Your task to perform on an android device: open the mobile data screen to see how much data has been used Image 0: 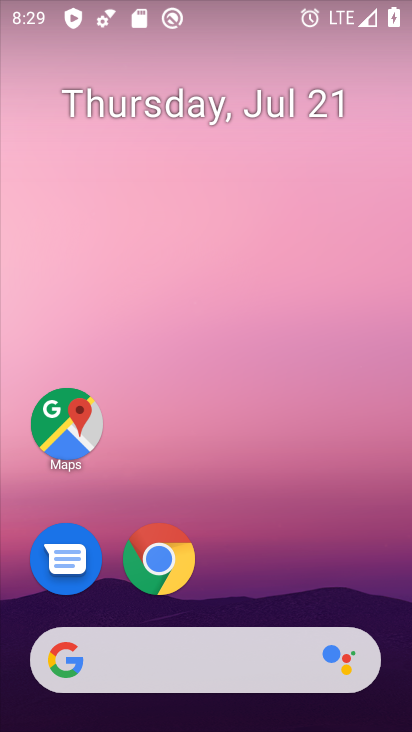
Step 0: drag from (357, 554) to (354, 118)
Your task to perform on an android device: open the mobile data screen to see how much data has been used Image 1: 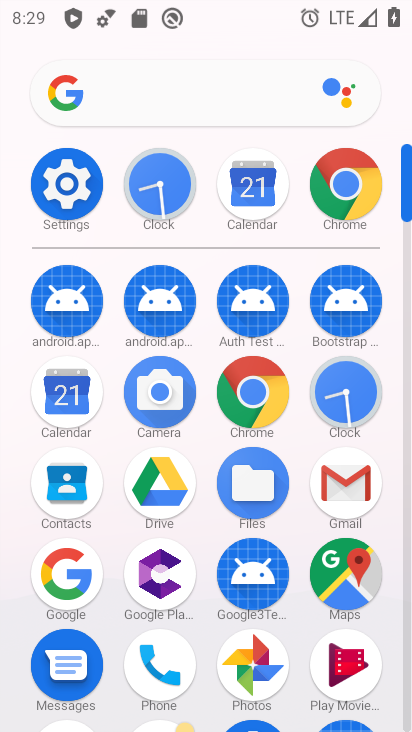
Step 1: click (80, 183)
Your task to perform on an android device: open the mobile data screen to see how much data has been used Image 2: 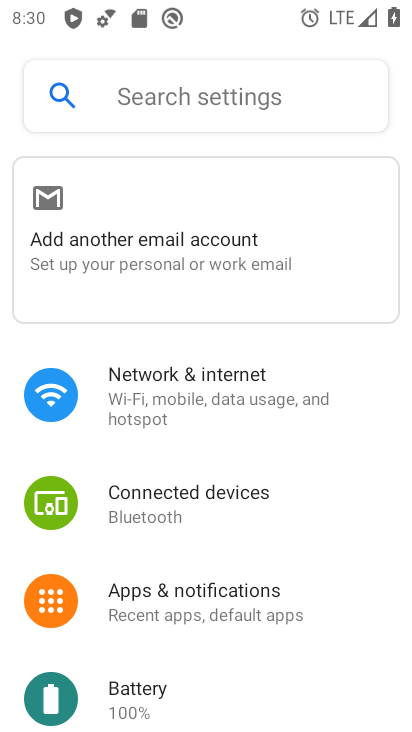
Step 2: drag from (335, 553) to (350, 407)
Your task to perform on an android device: open the mobile data screen to see how much data has been used Image 3: 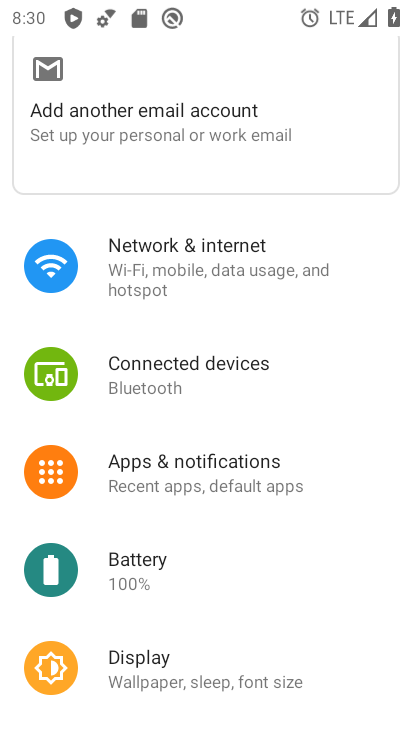
Step 3: drag from (363, 515) to (350, 416)
Your task to perform on an android device: open the mobile data screen to see how much data has been used Image 4: 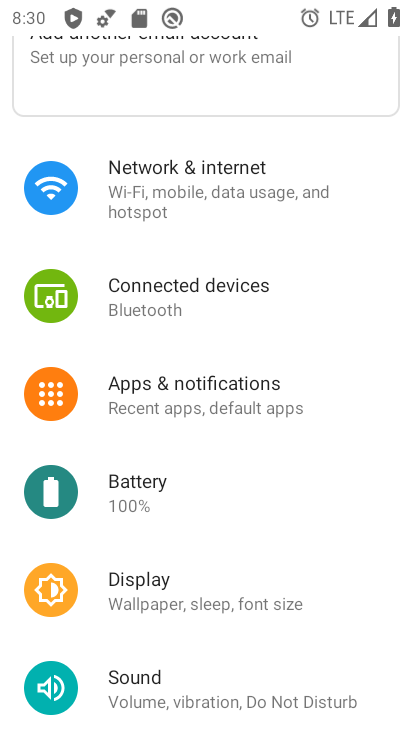
Step 4: drag from (334, 531) to (351, 408)
Your task to perform on an android device: open the mobile data screen to see how much data has been used Image 5: 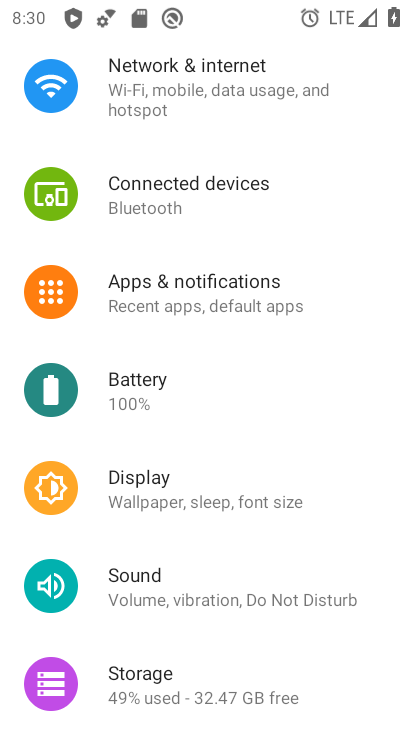
Step 5: drag from (374, 560) to (344, 412)
Your task to perform on an android device: open the mobile data screen to see how much data has been used Image 6: 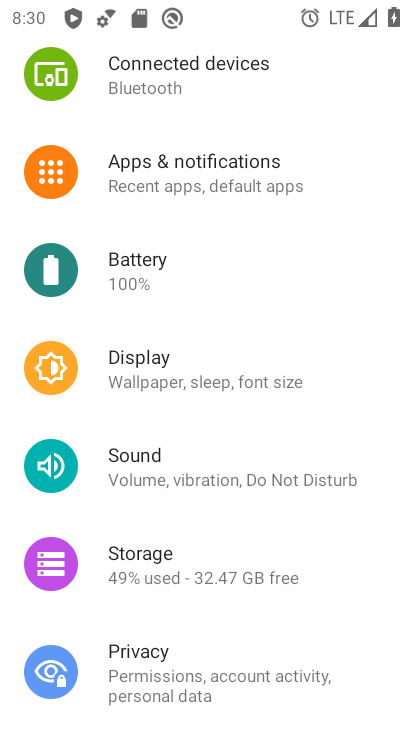
Step 6: drag from (357, 284) to (355, 403)
Your task to perform on an android device: open the mobile data screen to see how much data has been used Image 7: 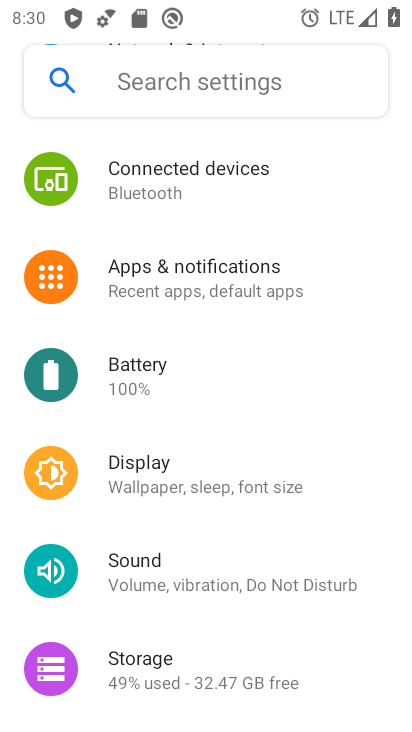
Step 7: drag from (348, 263) to (354, 417)
Your task to perform on an android device: open the mobile data screen to see how much data has been used Image 8: 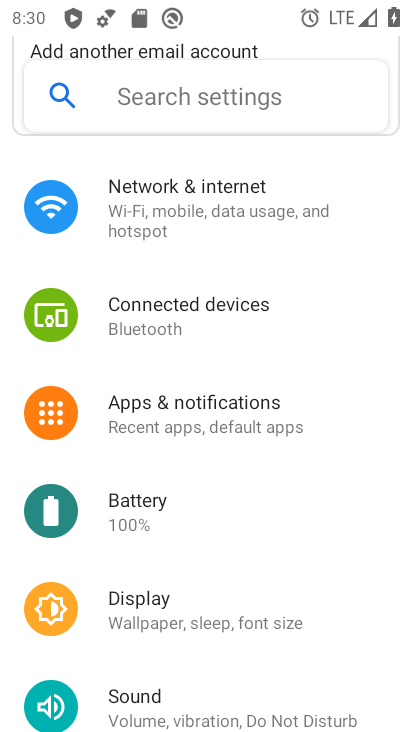
Step 8: drag from (360, 276) to (365, 422)
Your task to perform on an android device: open the mobile data screen to see how much data has been used Image 9: 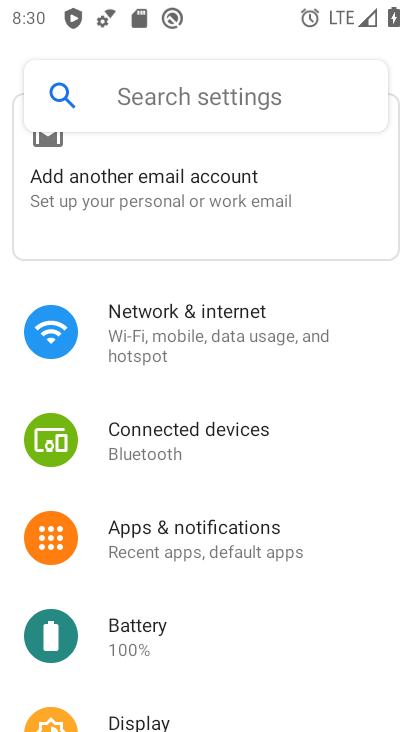
Step 9: click (315, 332)
Your task to perform on an android device: open the mobile data screen to see how much data has been used Image 10: 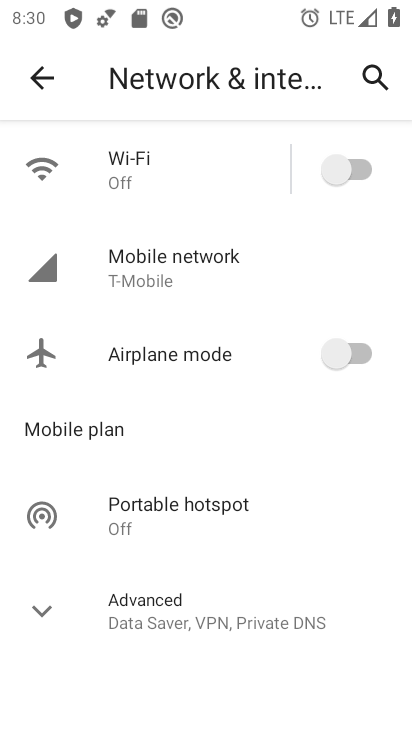
Step 10: click (295, 288)
Your task to perform on an android device: open the mobile data screen to see how much data has been used Image 11: 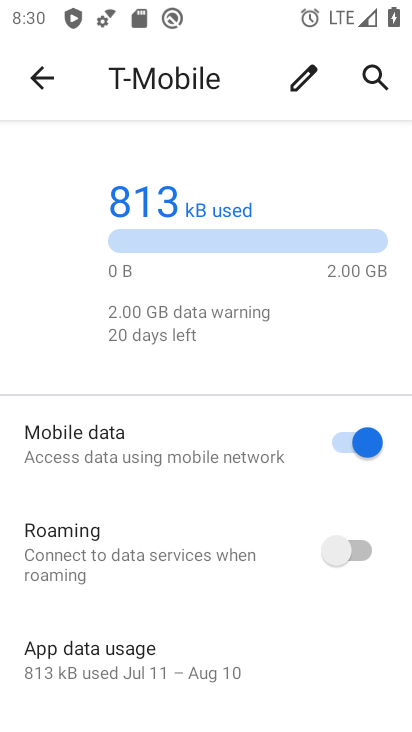
Step 11: drag from (261, 585) to (270, 410)
Your task to perform on an android device: open the mobile data screen to see how much data has been used Image 12: 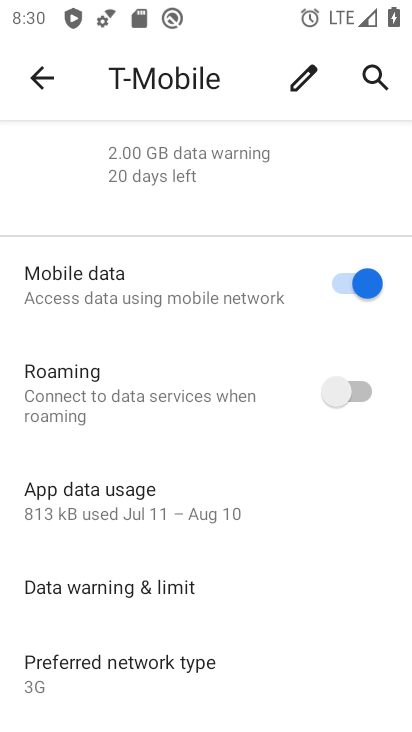
Step 12: drag from (313, 576) to (328, 430)
Your task to perform on an android device: open the mobile data screen to see how much data has been used Image 13: 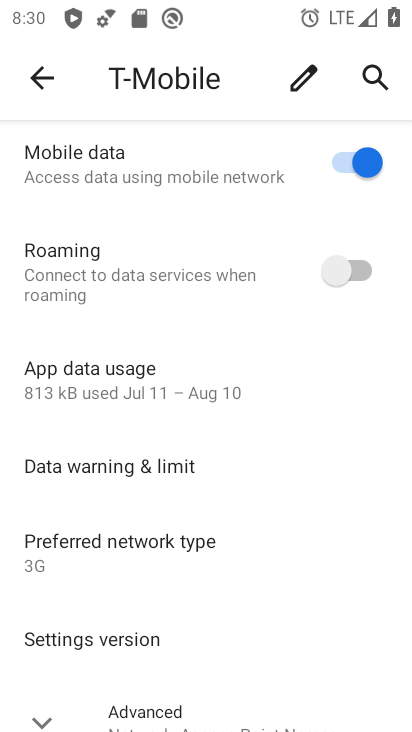
Step 13: drag from (323, 540) to (335, 441)
Your task to perform on an android device: open the mobile data screen to see how much data has been used Image 14: 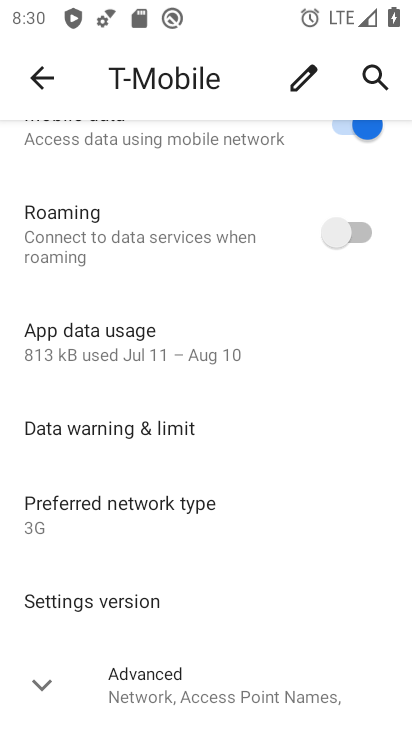
Step 14: drag from (341, 341) to (329, 443)
Your task to perform on an android device: open the mobile data screen to see how much data has been used Image 15: 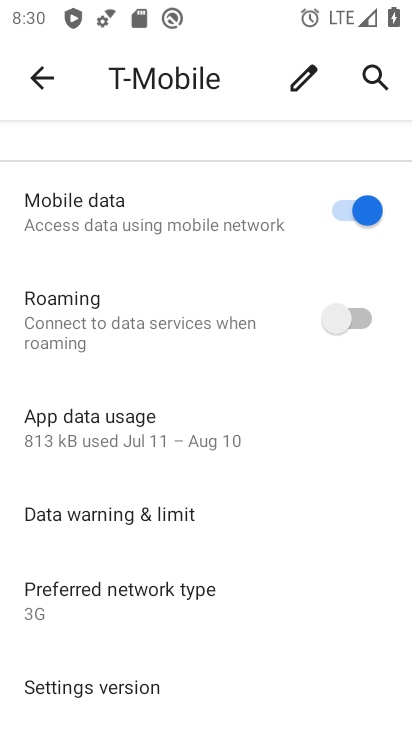
Step 15: click (257, 435)
Your task to perform on an android device: open the mobile data screen to see how much data has been used Image 16: 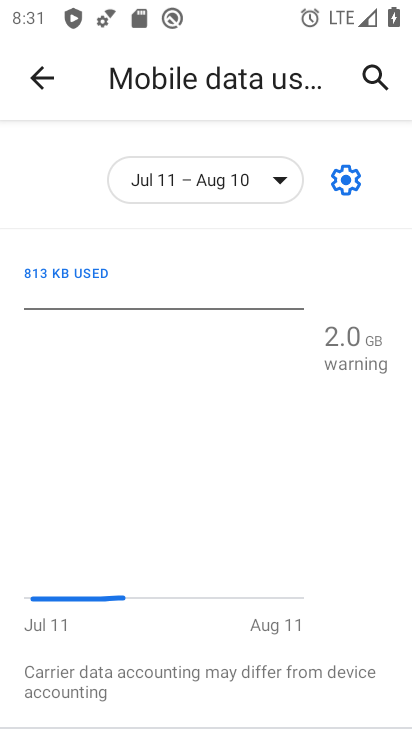
Step 16: task complete